Your task to perform on an android device: turn off airplane mode Image 0: 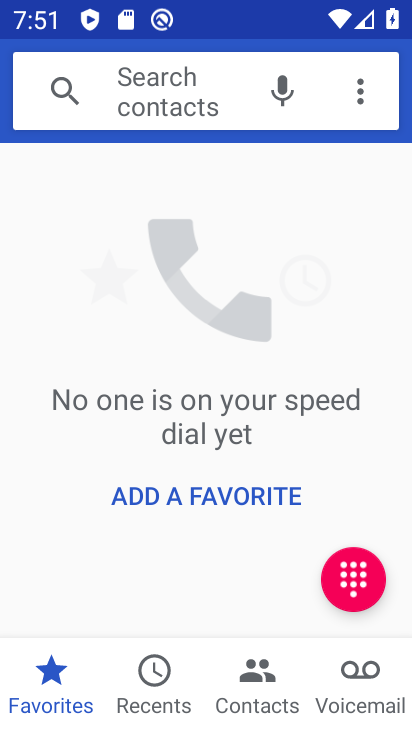
Step 0: press home button
Your task to perform on an android device: turn off airplane mode Image 1: 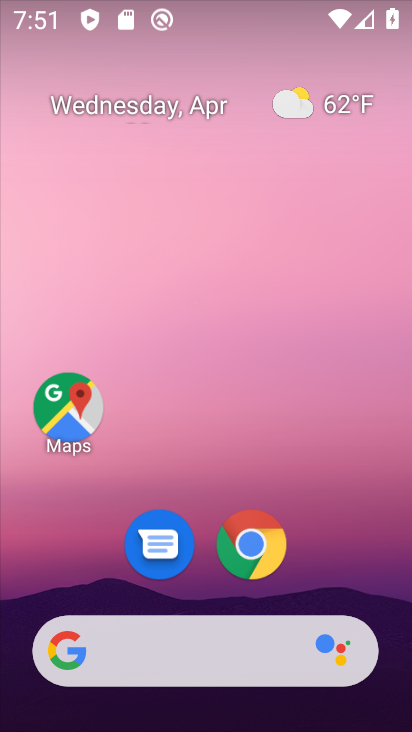
Step 1: drag from (324, 590) to (164, 151)
Your task to perform on an android device: turn off airplane mode Image 2: 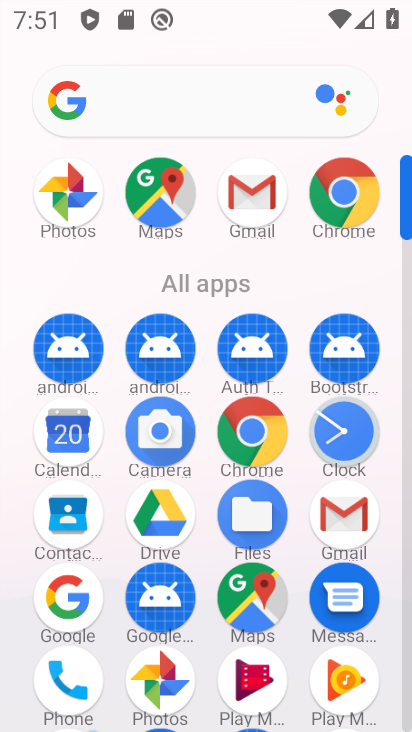
Step 2: drag from (205, 649) to (185, 253)
Your task to perform on an android device: turn off airplane mode Image 3: 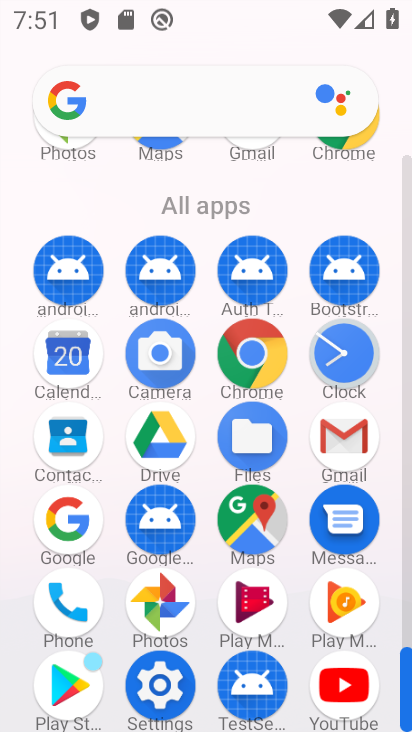
Step 3: click (161, 662)
Your task to perform on an android device: turn off airplane mode Image 4: 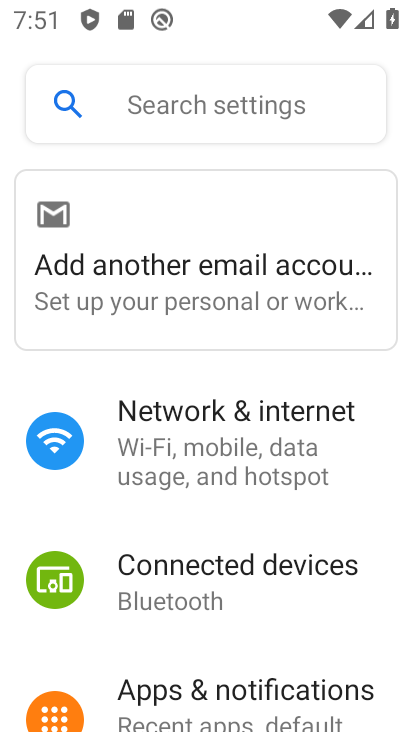
Step 4: click (218, 480)
Your task to perform on an android device: turn off airplane mode Image 5: 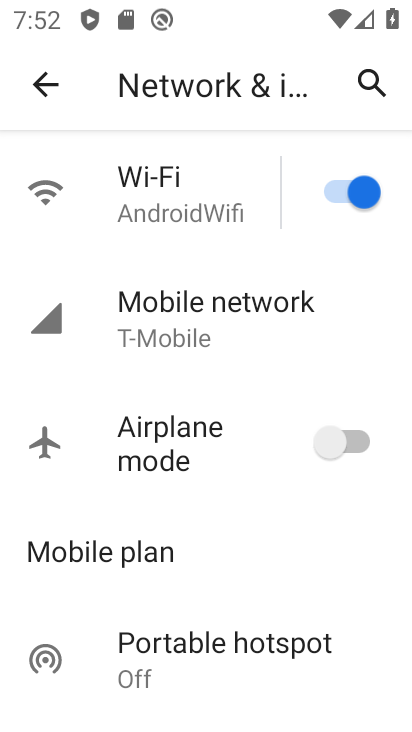
Step 5: task complete